Your task to perform on an android device: turn off translation in the chrome app Image 0: 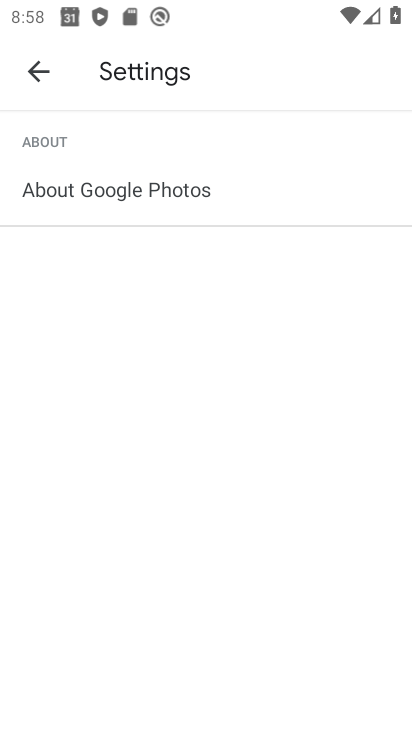
Step 0: press home button
Your task to perform on an android device: turn off translation in the chrome app Image 1: 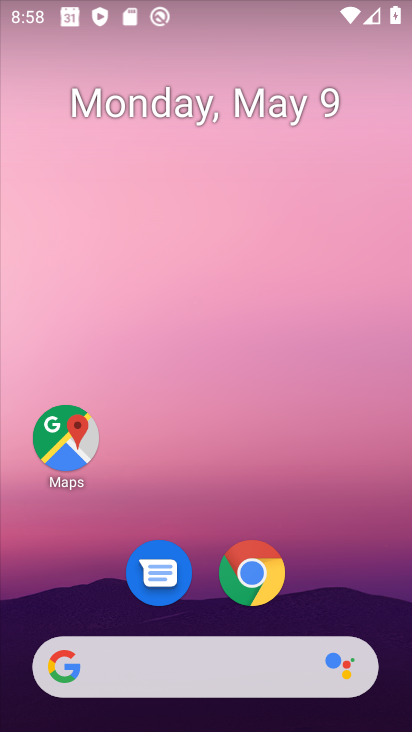
Step 1: click (246, 565)
Your task to perform on an android device: turn off translation in the chrome app Image 2: 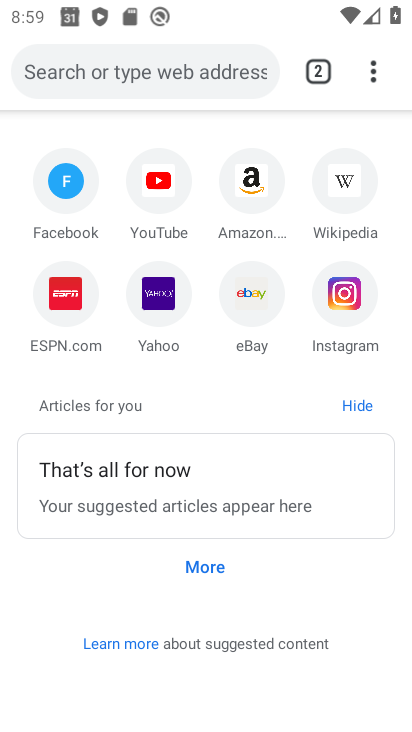
Step 2: click (371, 70)
Your task to perform on an android device: turn off translation in the chrome app Image 3: 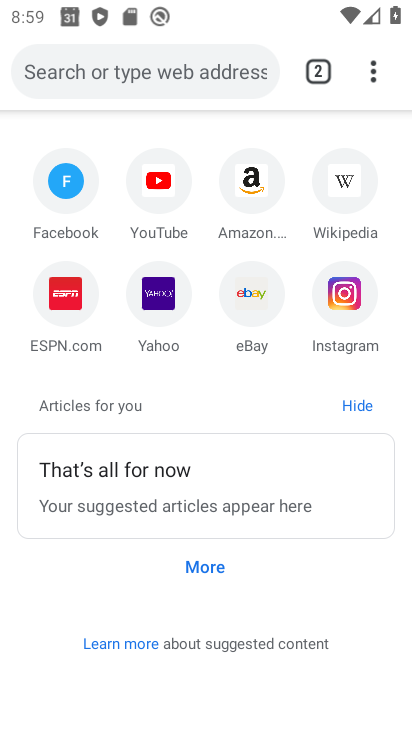
Step 3: click (372, 77)
Your task to perform on an android device: turn off translation in the chrome app Image 4: 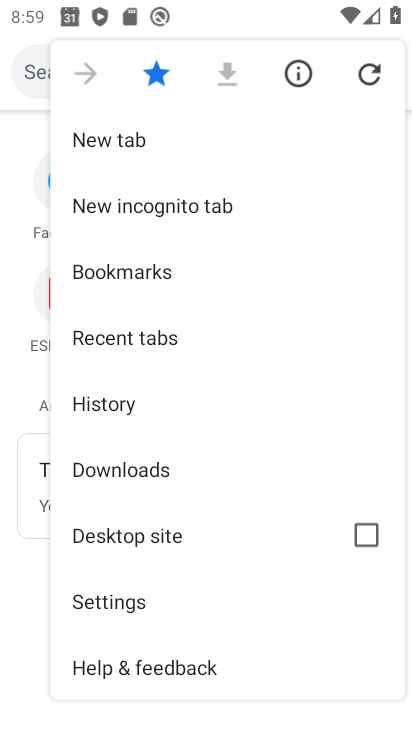
Step 4: click (169, 597)
Your task to perform on an android device: turn off translation in the chrome app Image 5: 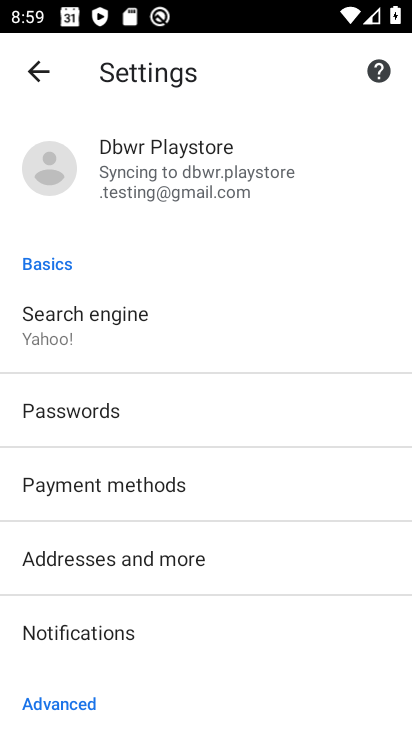
Step 5: drag from (223, 666) to (211, 469)
Your task to perform on an android device: turn off translation in the chrome app Image 6: 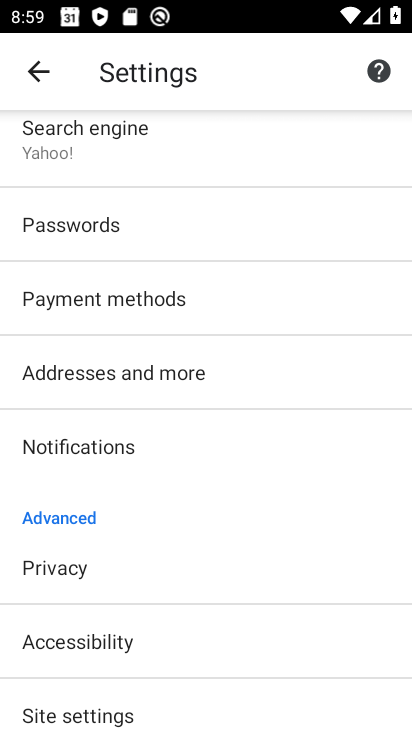
Step 6: drag from (264, 657) to (261, 436)
Your task to perform on an android device: turn off translation in the chrome app Image 7: 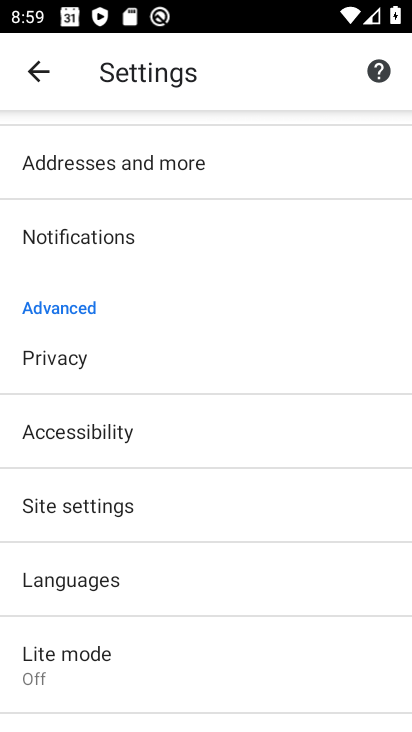
Step 7: click (139, 586)
Your task to perform on an android device: turn off translation in the chrome app Image 8: 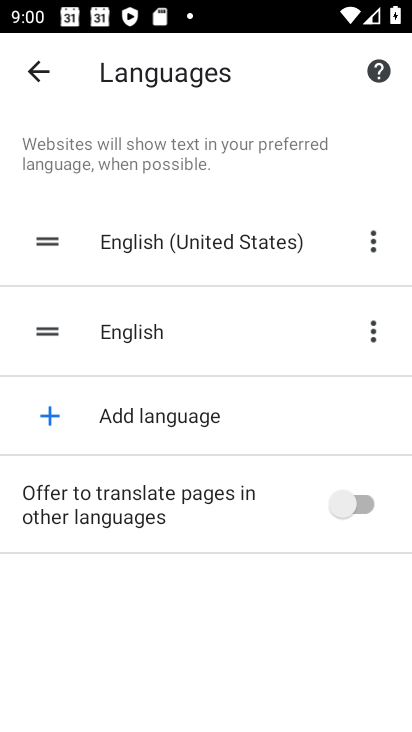
Step 8: task complete